Your task to perform on an android device: Play the last video I watched on Youtube Image 0: 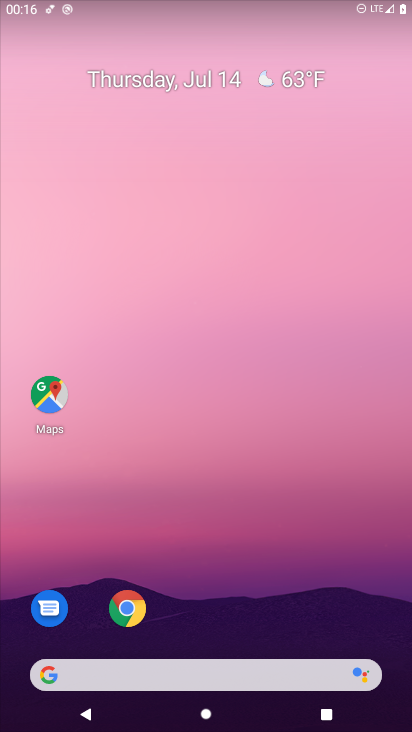
Step 0: press home button
Your task to perform on an android device: Play the last video I watched on Youtube Image 1: 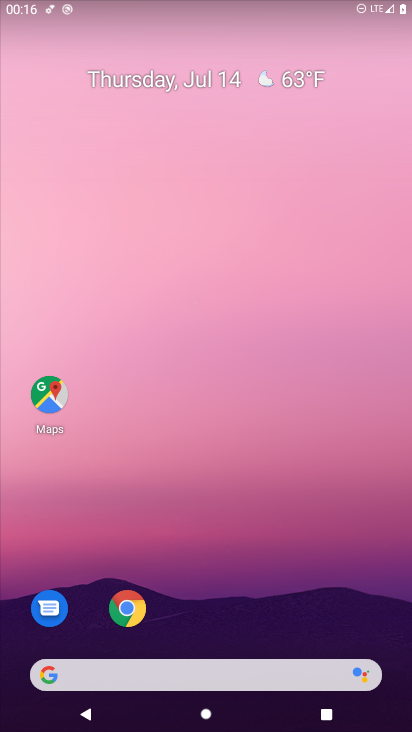
Step 1: drag from (226, 638) to (187, 20)
Your task to perform on an android device: Play the last video I watched on Youtube Image 2: 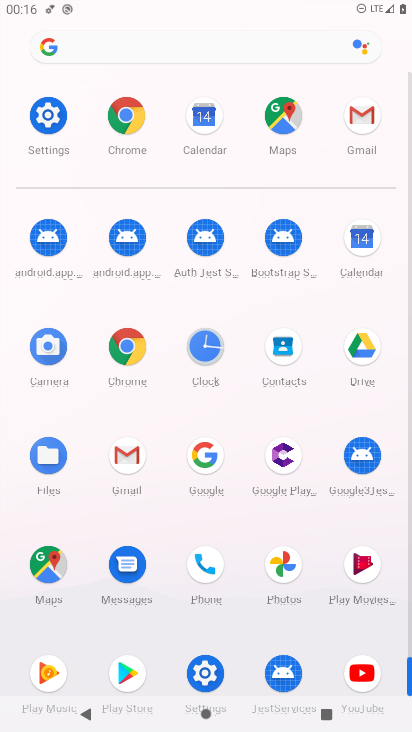
Step 2: click (360, 668)
Your task to perform on an android device: Play the last video I watched on Youtube Image 3: 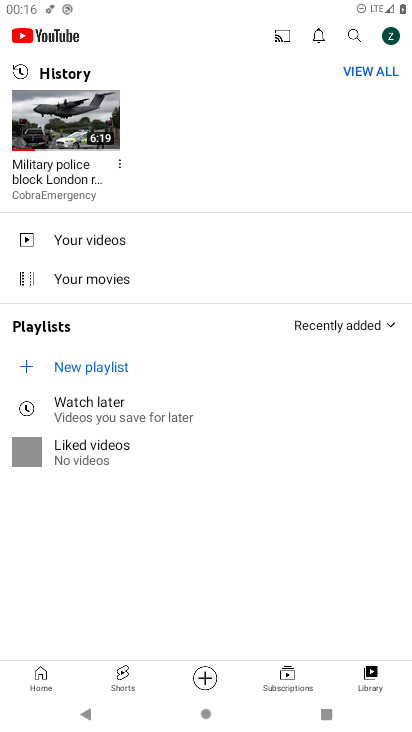
Step 3: click (370, 681)
Your task to perform on an android device: Play the last video I watched on Youtube Image 4: 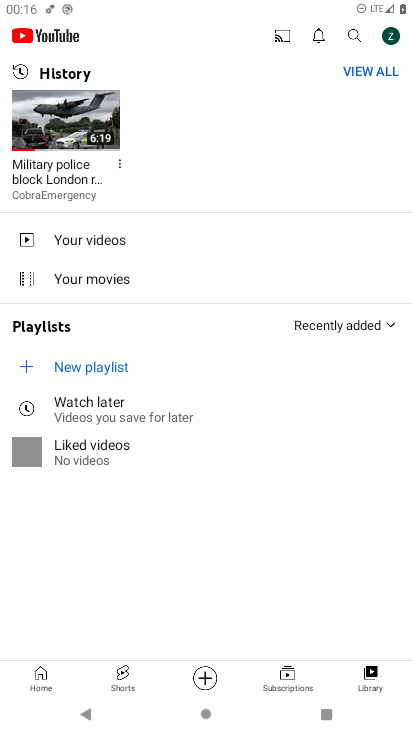
Step 4: click (73, 113)
Your task to perform on an android device: Play the last video I watched on Youtube Image 5: 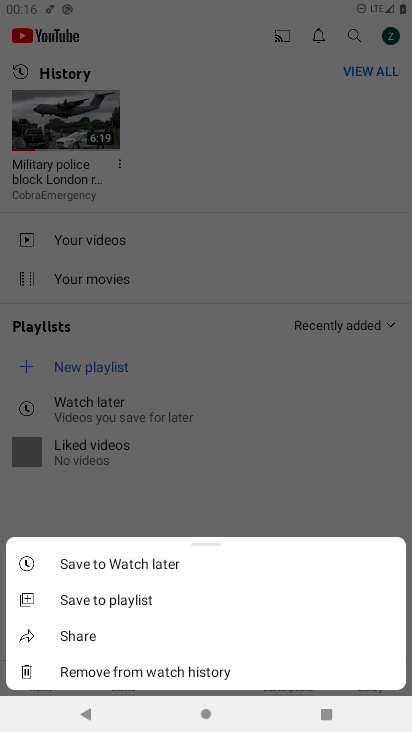
Step 5: click (69, 148)
Your task to perform on an android device: Play the last video I watched on Youtube Image 6: 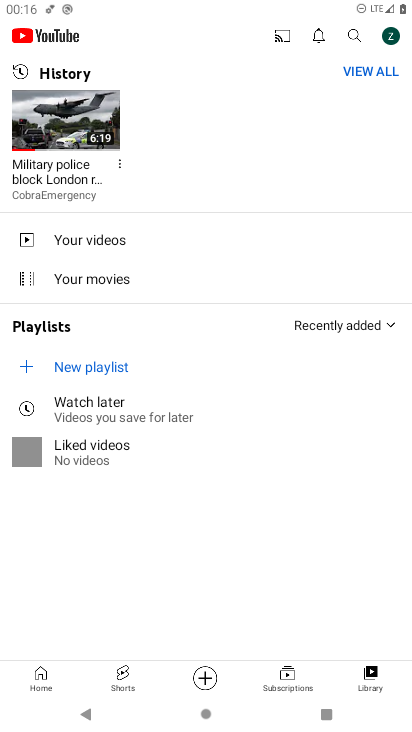
Step 6: click (77, 122)
Your task to perform on an android device: Play the last video I watched on Youtube Image 7: 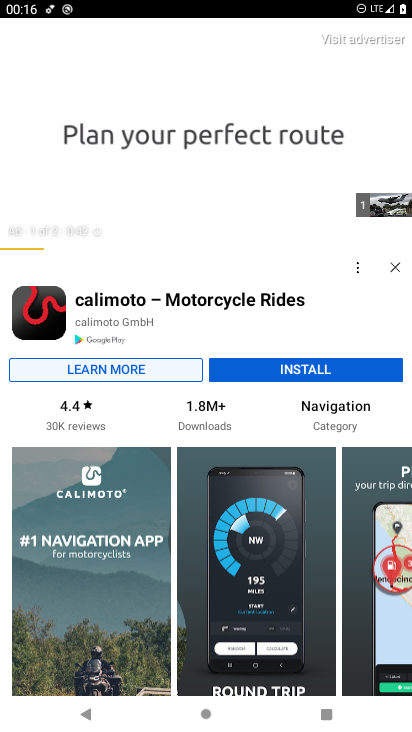
Step 7: click (392, 268)
Your task to perform on an android device: Play the last video I watched on Youtube Image 8: 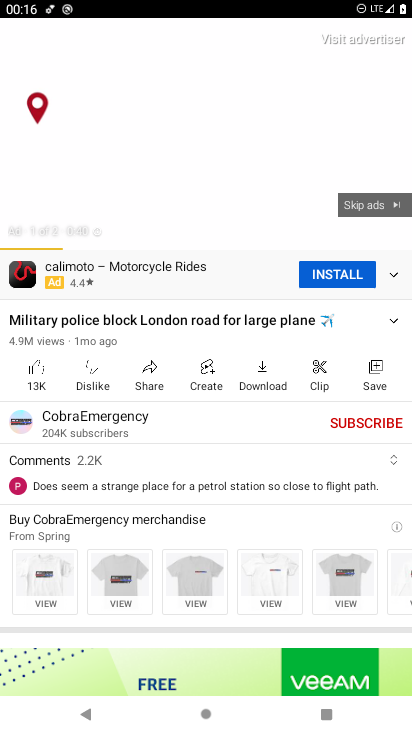
Step 8: click (374, 209)
Your task to perform on an android device: Play the last video I watched on Youtube Image 9: 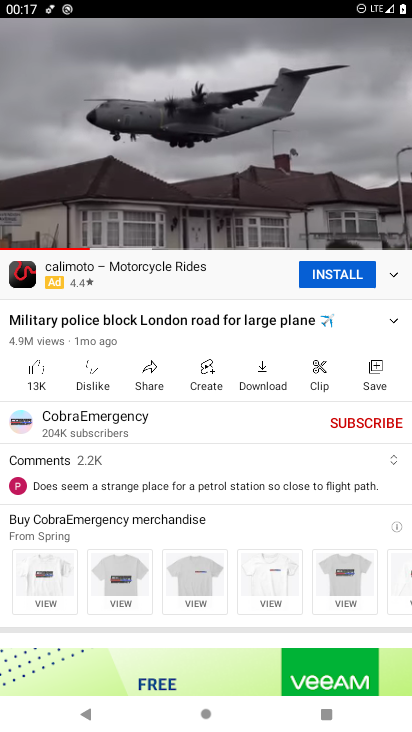
Step 9: task complete